Your task to perform on an android device: Do I have any events tomorrow? Image 0: 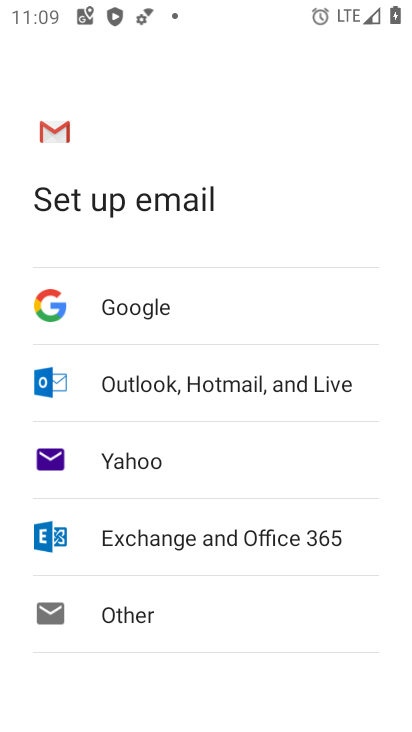
Step 0: press home button
Your task to perform on an android device: Do I have any events tomorrow? Image 1: 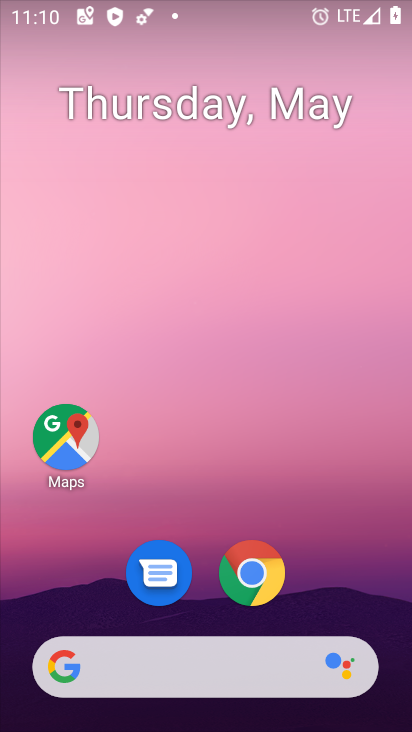
Step 1: drag from (200, 607) to (218, 239)
Your task to perform on an android device: Do I have any events tomorrow? Image 2: 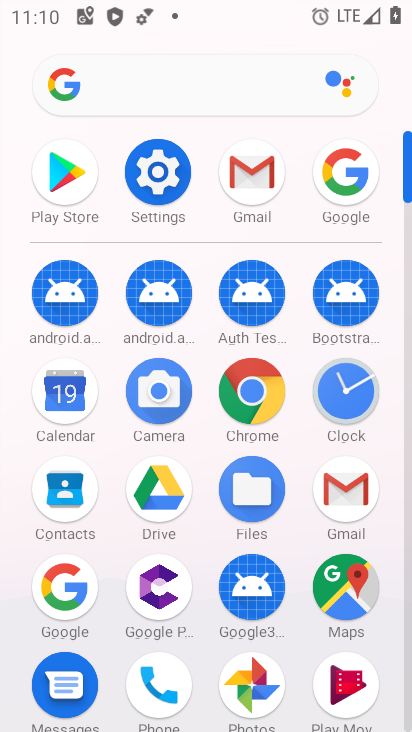
Step 2: click (75, 410)
Your task to perform on an android device: Do I have any events tomorrow? Image 3: 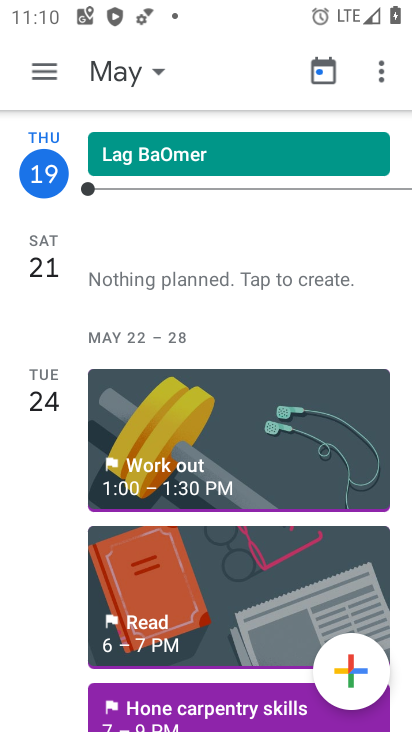
Step 3: click (142, 75)
Your task to perform on an android device: Do I have any events tomorrow? Image 4: 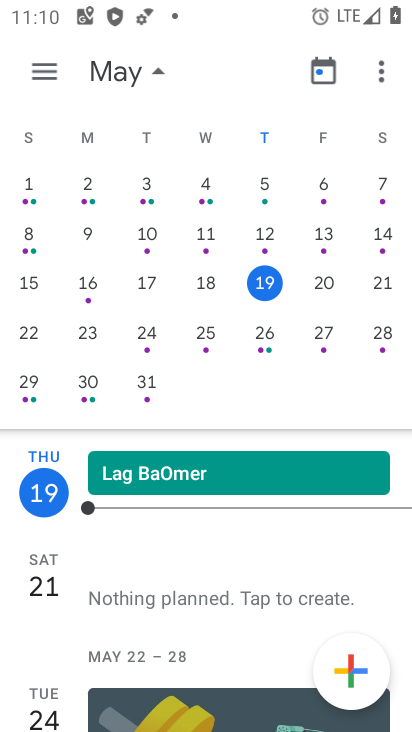
Step 4: click (310, 278)
Your task to perform on an android device: Do I have any events tomorrow? Image 5: 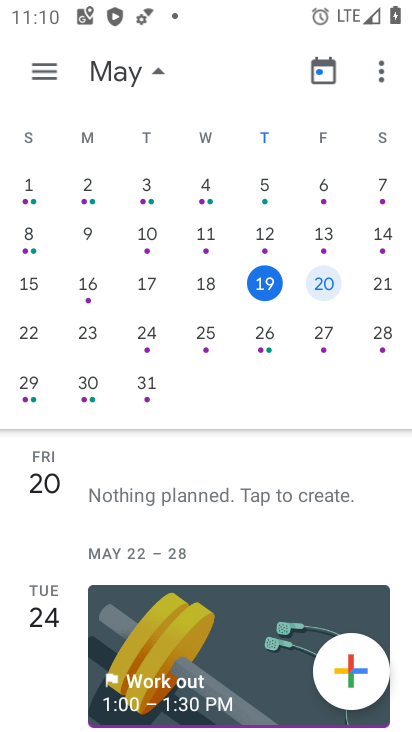
Step 5: task complete